Your task to perform on an android device: star an email in the gmail app Image 0: 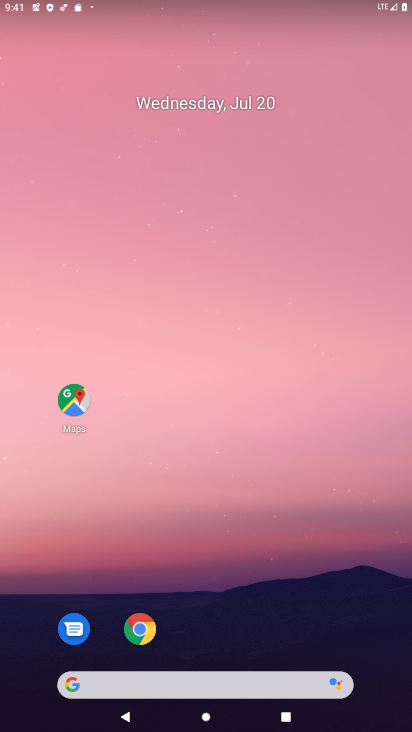
Step 0: drag from (321, 532) to (306, 26)
Your task to perform on an android device: star an email in the gmail app Image 1: 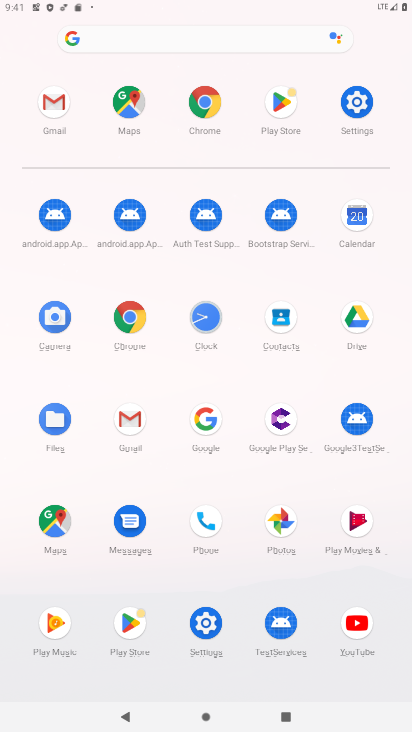
Step 1: click (121, 409)
Your task to perform on an android device: star an email in the gmail app Image 2: 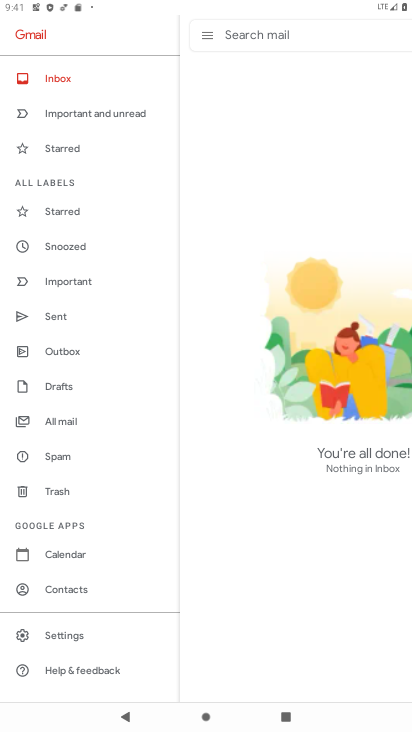
Step 2: click (250, 249)
Your task to perform on an android device: star an email in the gmail app Image 3: 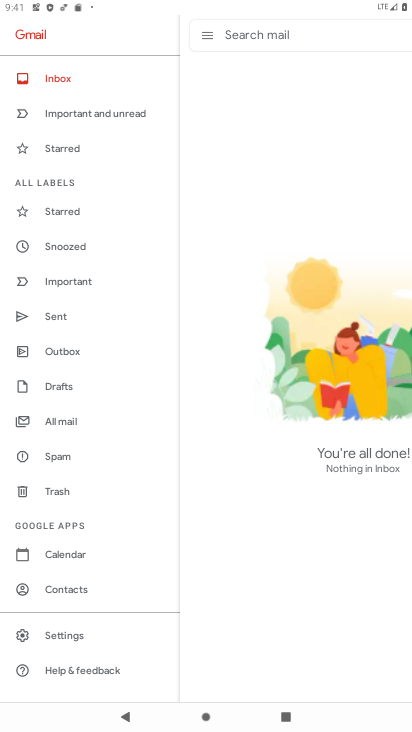
Step 3: task complete